Your task to perform on an android device: Search for Italian restaurants on Maps Image 0: 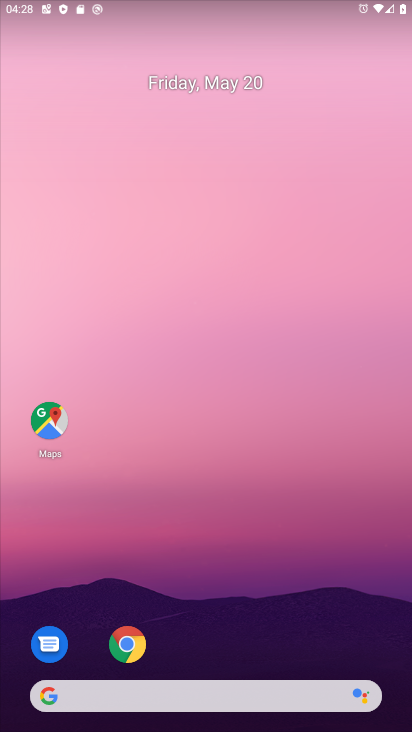
Step 0: click (133, 640)
Your task to perform on an android device: Search for Italian restaurants on Maps Image 1: 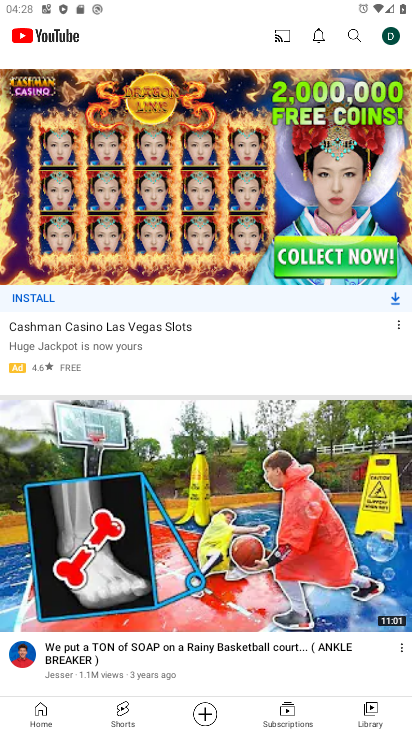
Step 1: press home button
Your task to perform on an android device: Search for Italian restaurants on Maps Image 2: 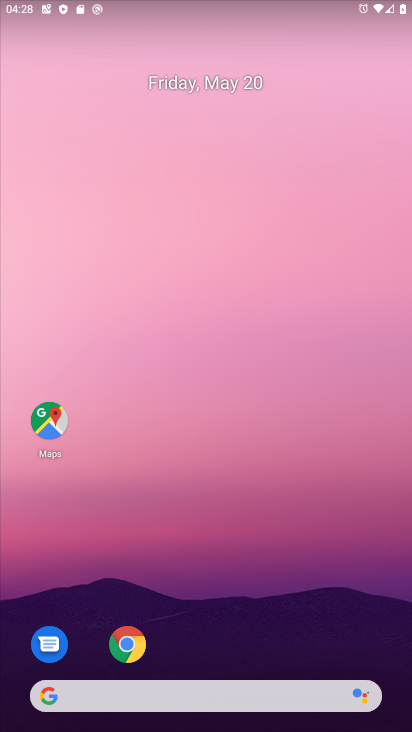
Step 2: drag from (203, 587) to (206, 364)
Your task to perform on an android device: Search for Italian restaurants on Maps Image 3: 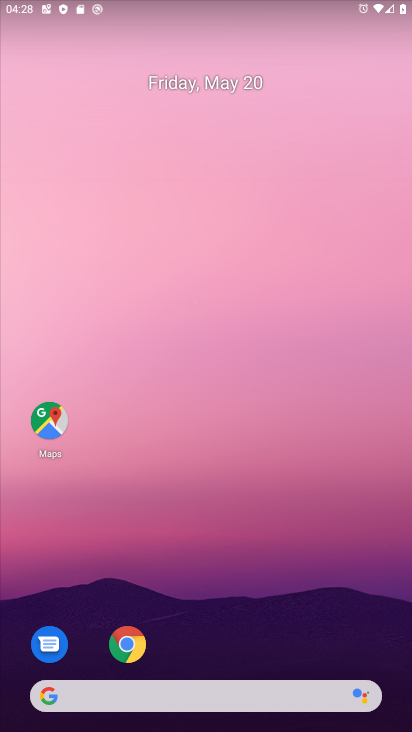
Step 3: click (58, 425)
Your task to perform on an android device: Search for Italian restaurants on Maps Image 4: 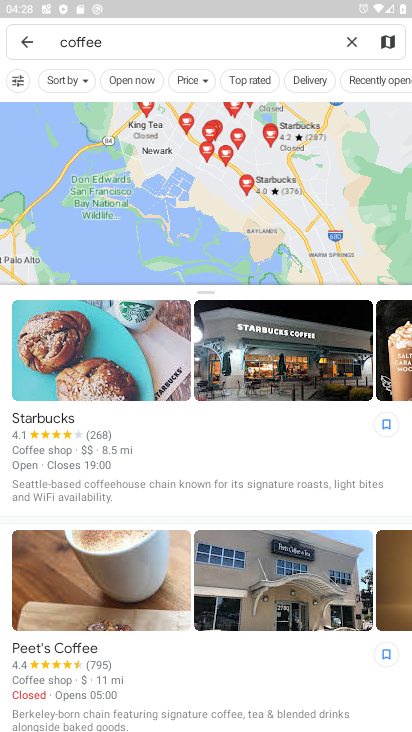
Step 4: click (356, 45)
Your task to perform on an android device: Search for Italian restaurants on Maps Image 5: 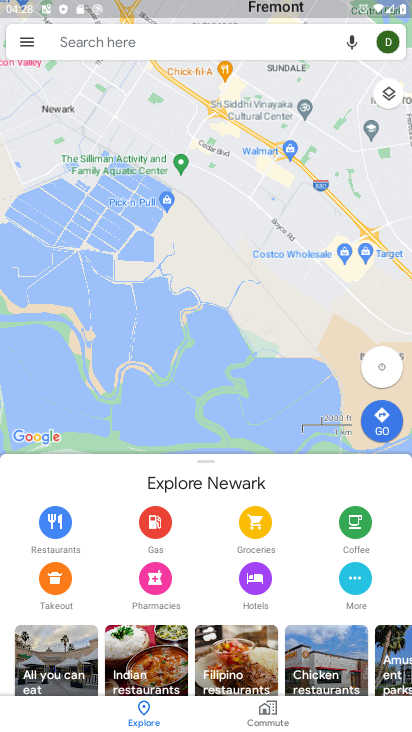
Step 5: click (315, 45)
Your task to perform on an android device: Search for Italian restaurants on Maps Image 6: 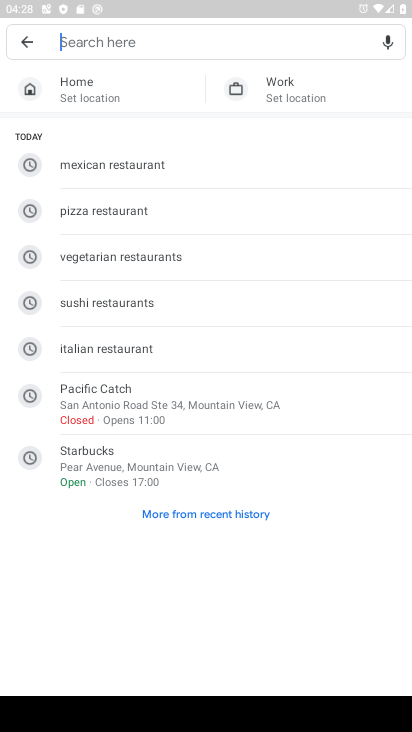
Step 6: click (131, 341)
Your task to perform on an android device: Search for Italian restaurants on Maps Image 7: 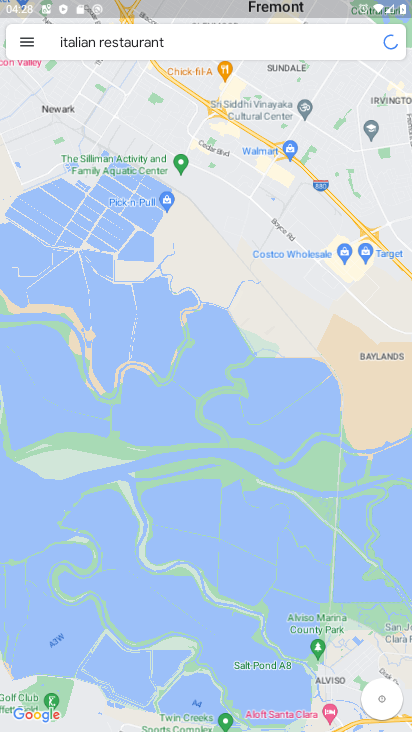
Step 7: task complete